Your task to perform on an android device: What's the news in Brazil? Image 0: 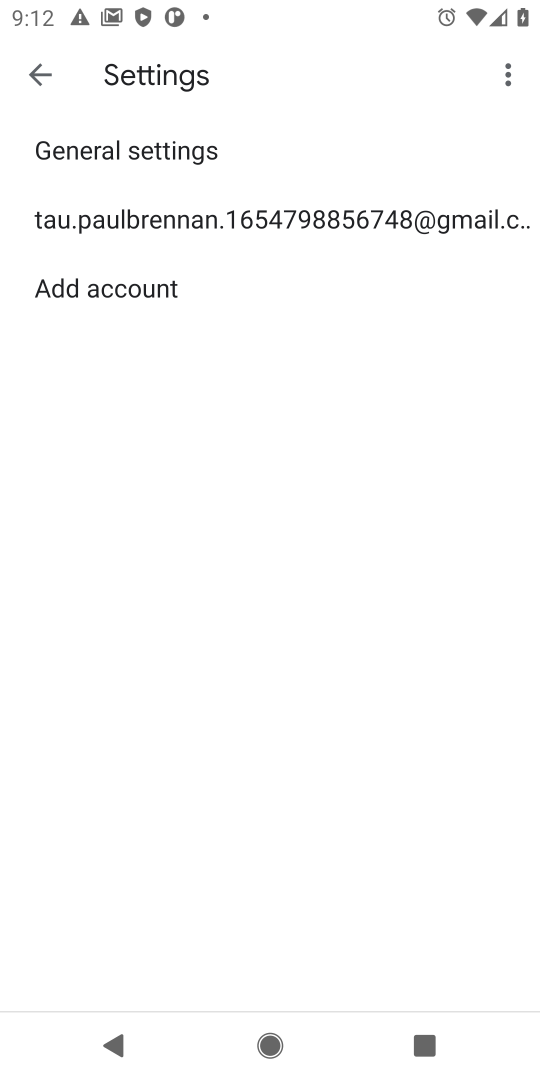
Step 0: press home button
Your task to perform on an android device: What's the news in Brazil? Image 1: 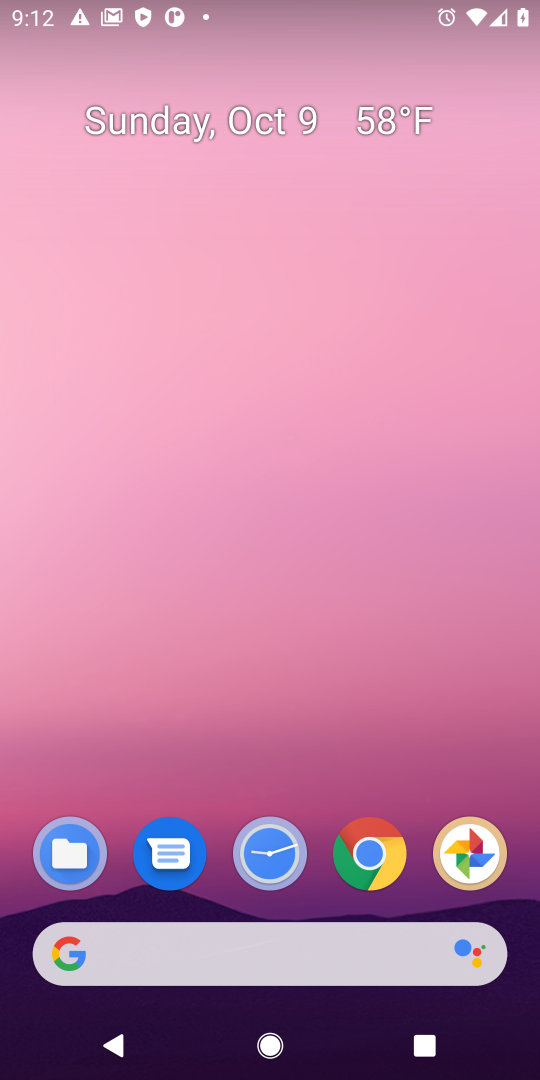
Step 1: click (384, 865)
Your task to perform on an android device: What's the news in Brazil? Image 2: 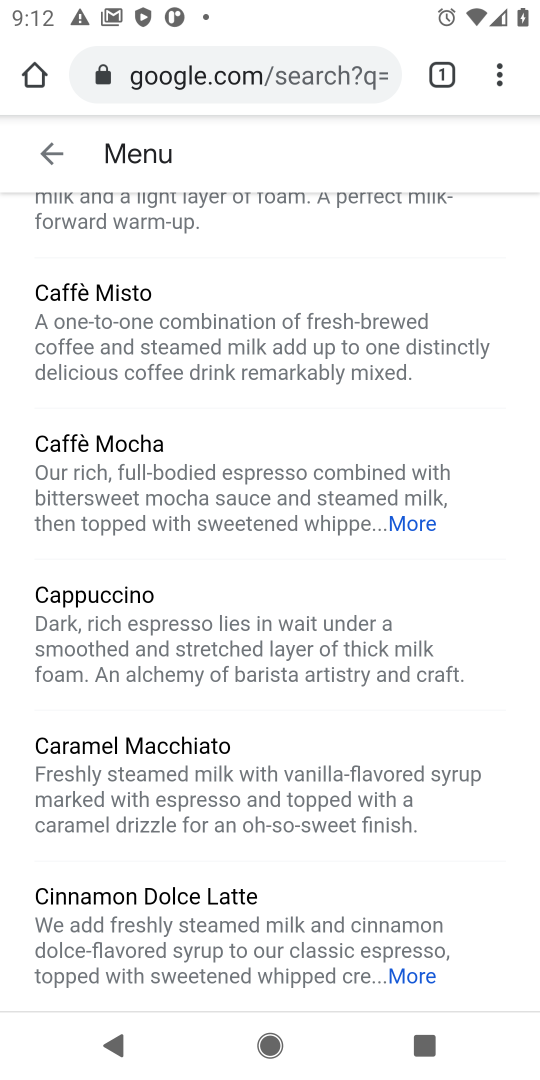
Step 2: click (298, 67)
Your task to perform on an android device: What's the news in Brazil? Image 3: 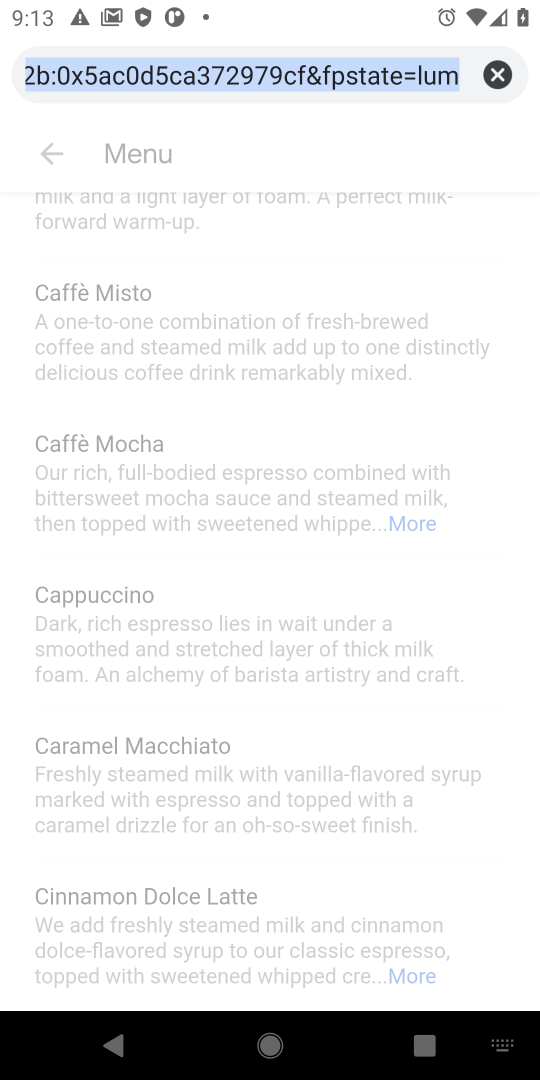
Step 3: type "brazil news"
Your task to perform on an android device: What's the news in Brazil? Image 4: 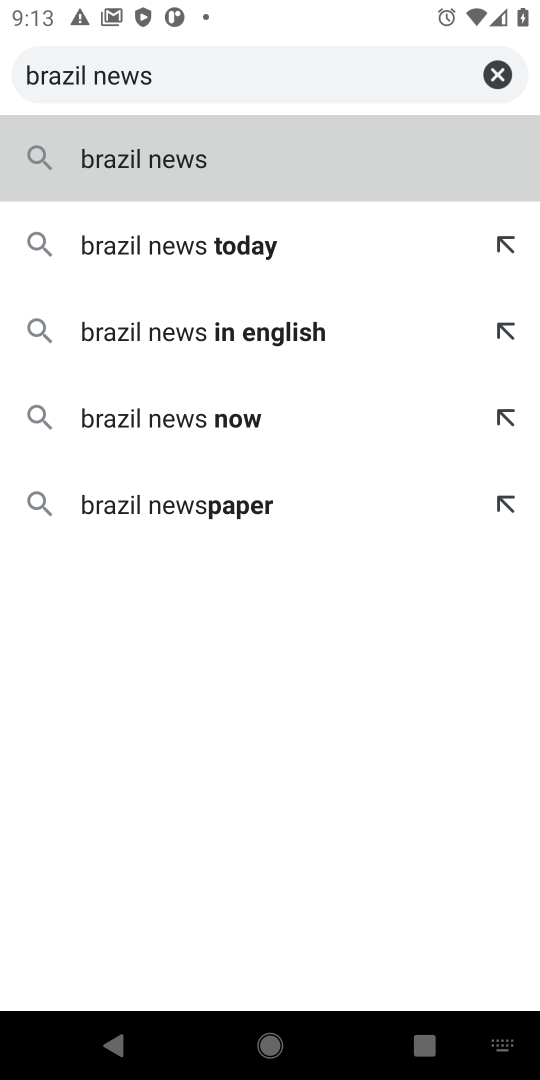
Step 4: click (272, 169)
Your task to perform on an android device: What's the news in Brazil? Image 5: 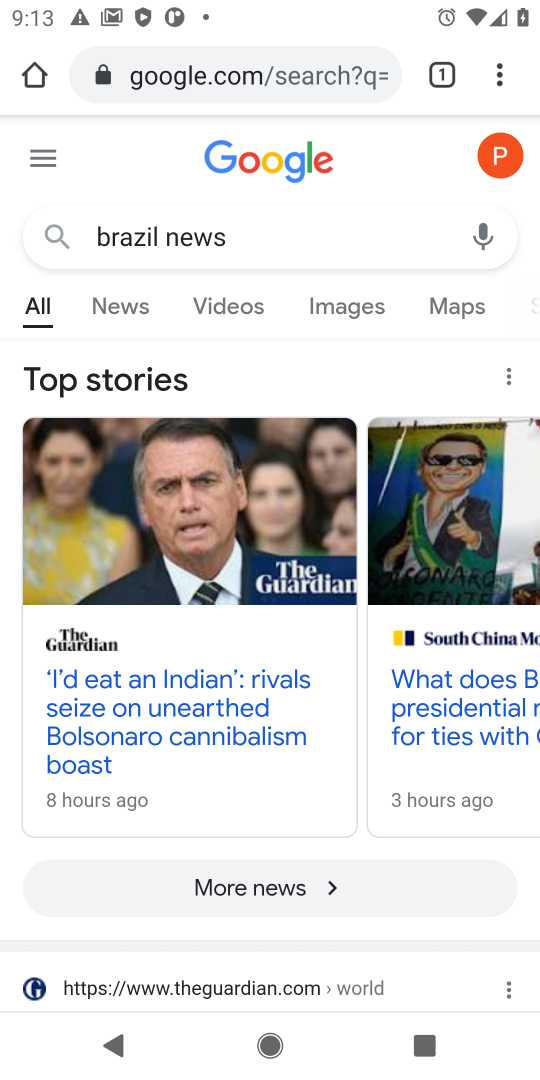
Step 5: click (139, 301)
Your task to perform on an android device: What's the news in Brazil? Image 6: 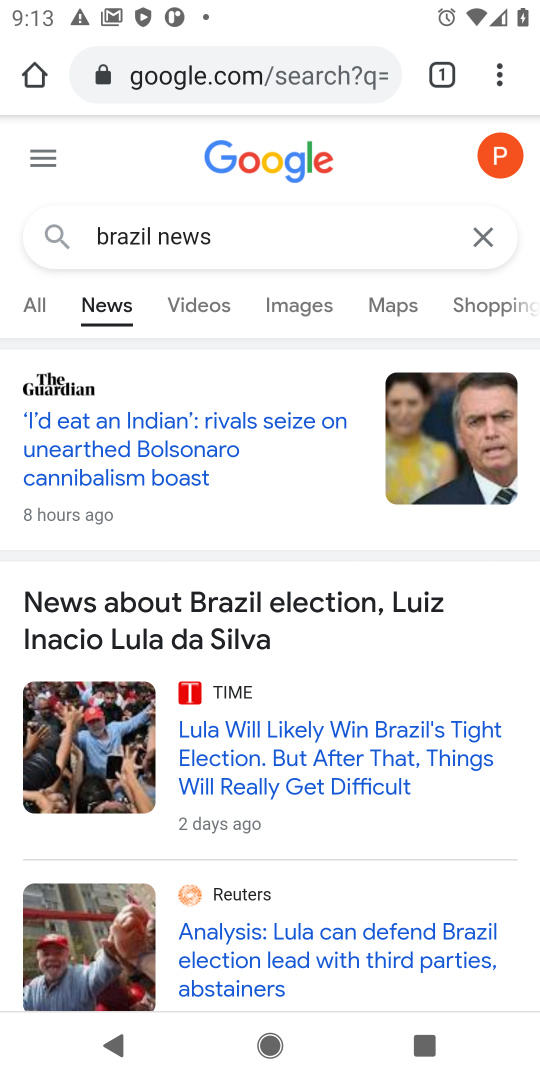
Step 6: task complete